Your task to perform on an android device: find photos in the google photos app Image 0: 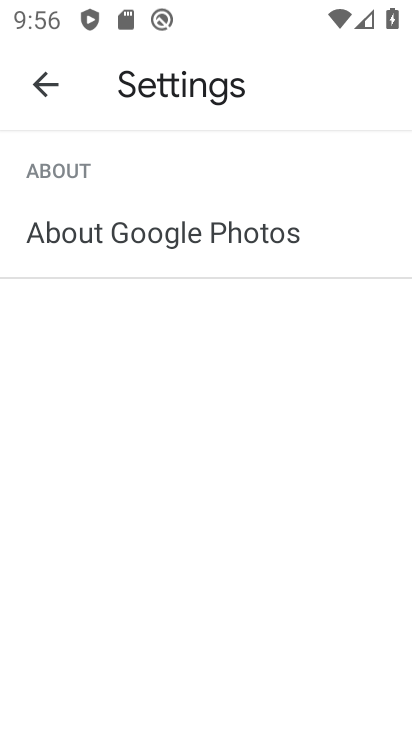
Step 0: press home button
Your task to perform on an android device: find photos in the google photos app Image 1: 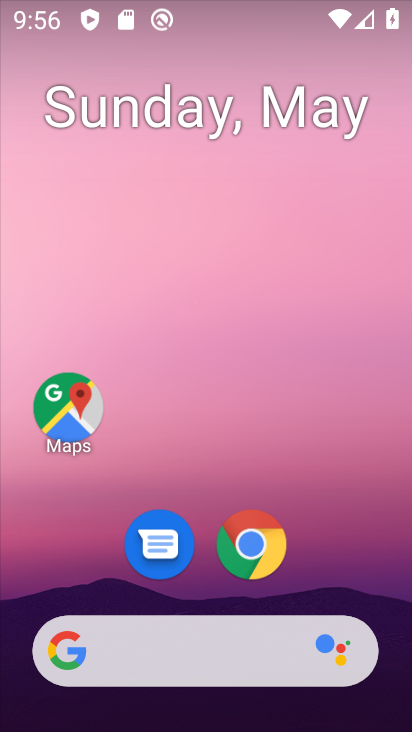
Step 1: drag from (341, 590) to (234, 27)
Your task to perform on an android device: find photos in the google photos app Image 2: 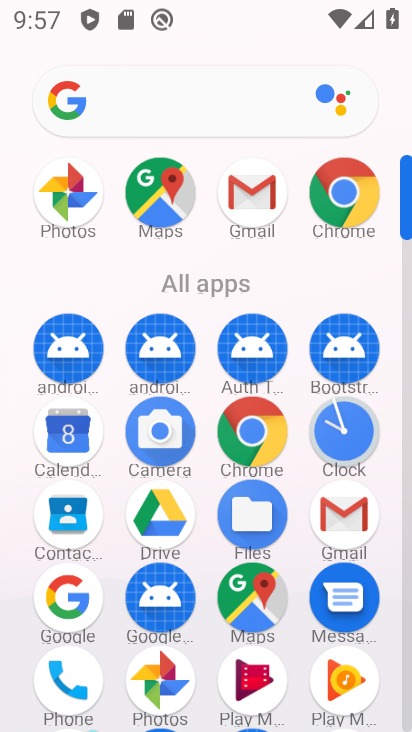
Step 2: click (61, 186)
Your task to perform on an android device: find photos in the google photos app Image 3: 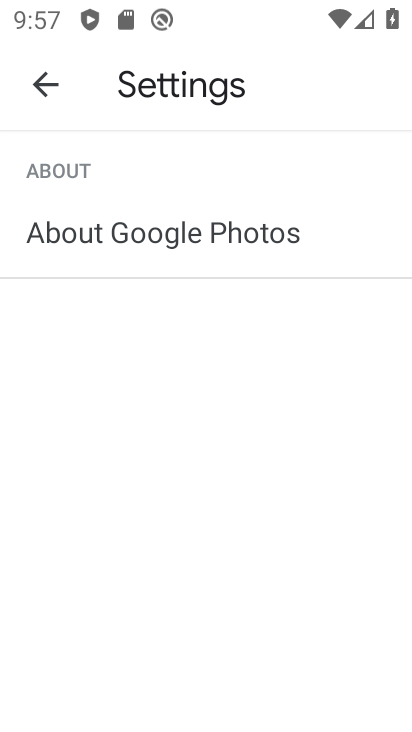
Step 3: click (72, 86)
Your task to perform on an android device: find photos in the google photos app Image 4: 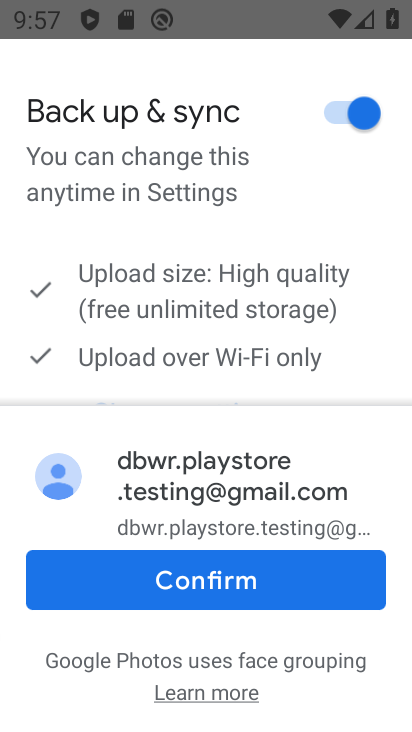
Step 4: click (224, 584)
Your task to perform on an android device: find photos in the google photos app Image 5: 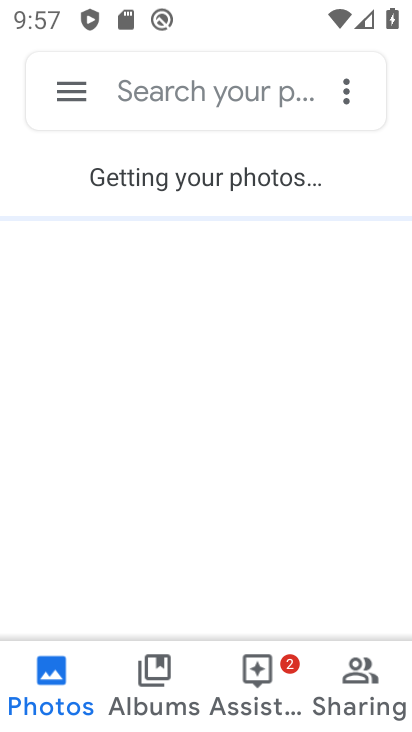
Step 5: click (144, 367)
Your task to perform on an android device: find photos in the google photos app Image 6: 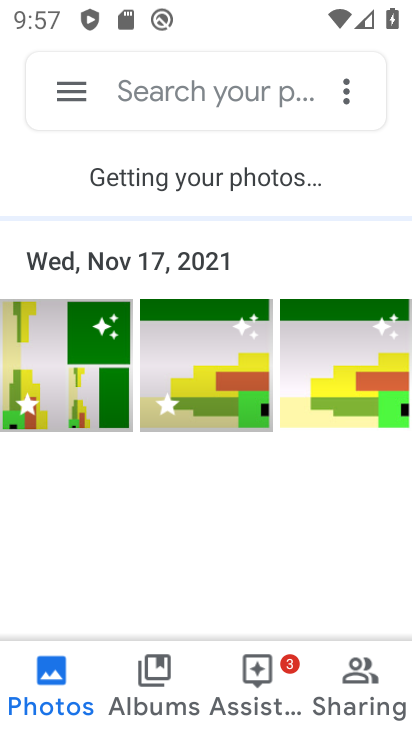
Step 6: click (81, 374)
Your task to perform on an android device: find photos in the google photos app Image 7: 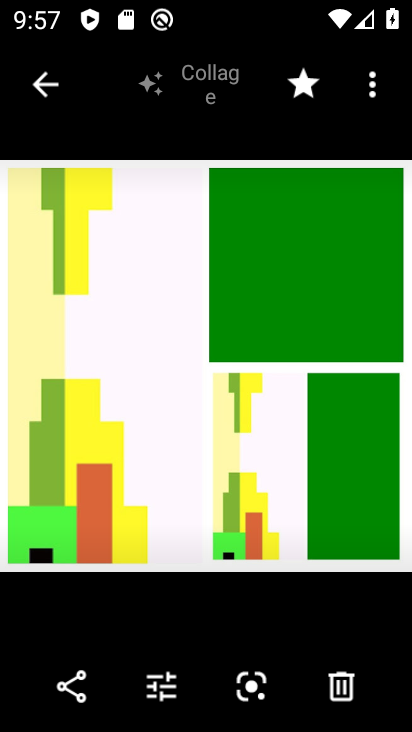
Step 7: task complete